Your task to perform on an android device: see tabs open on other devices in the chrome app Image 0: 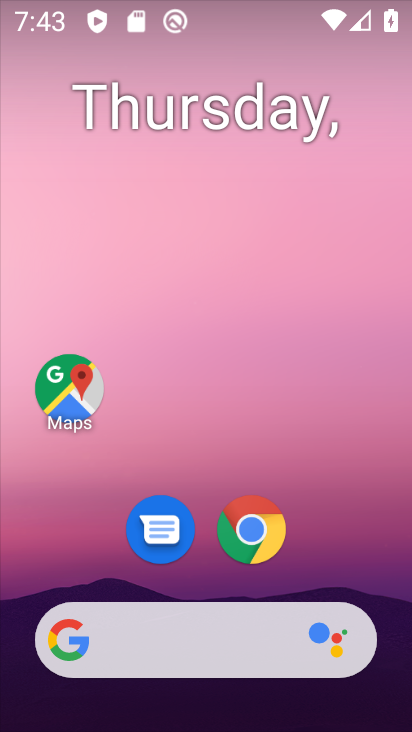
Step 0: click (238, 533)
Your task to perform on an android device: see tabs open on other devices in the chrome app Image 1: 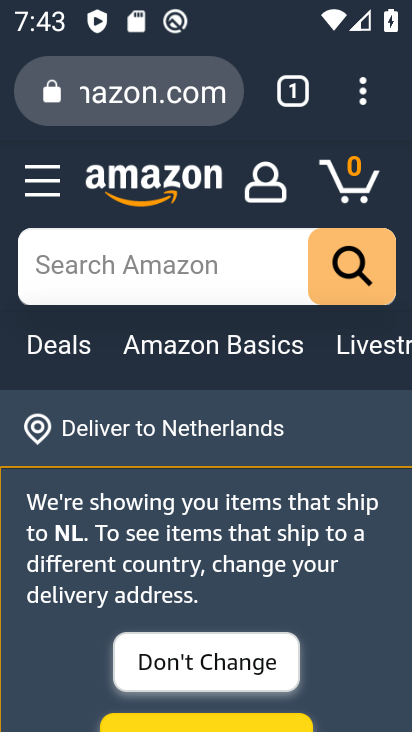
Step 1: click (353, 86)
Your task to perform on an android device: see tabs open on other devices in the chrome app Image 2: 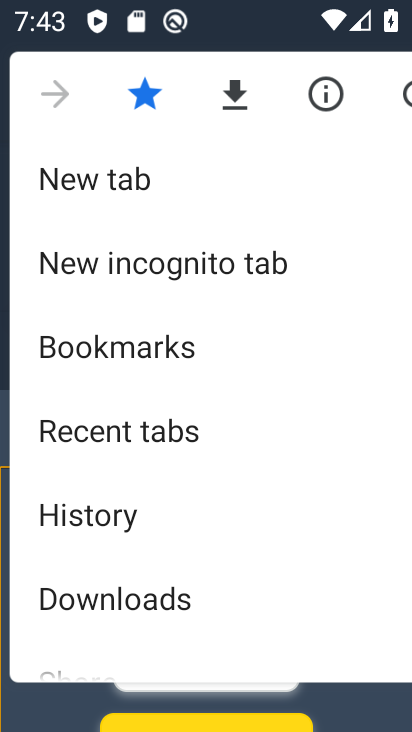
Step 2: click (103, 423)
Your task to perform on an android device: see tabs open on other devices in the chrome app Image 3: 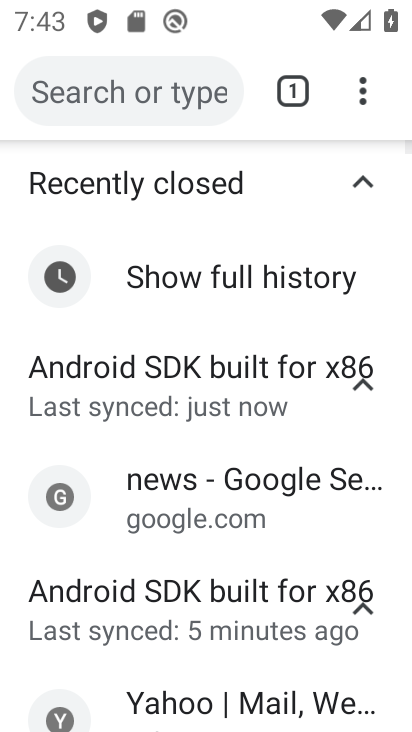
Step 3: task complete